Your task to perform on an android device: When is my next meeting? Image 0: 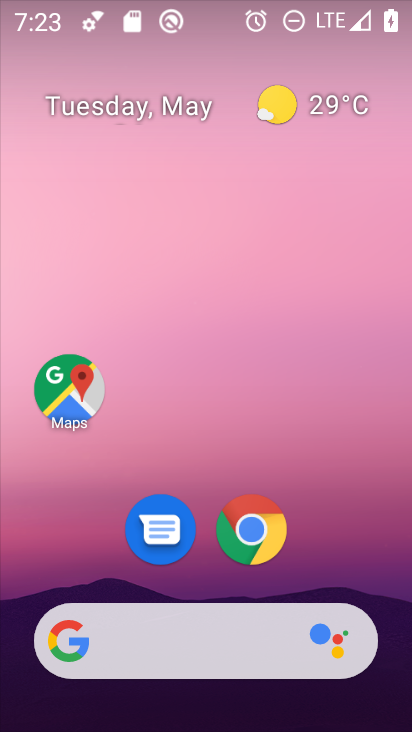
Step 0: drag from (379, 645) to (187, 25)
Your task to perform on an android device: When is my next meeting? Image 1: 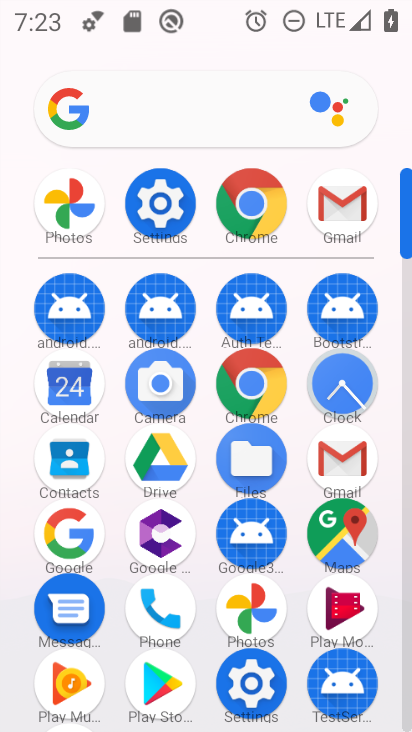
Step 1: click (81, 388)
Your task to perform on an android device: When is my next meeting? Image 2: 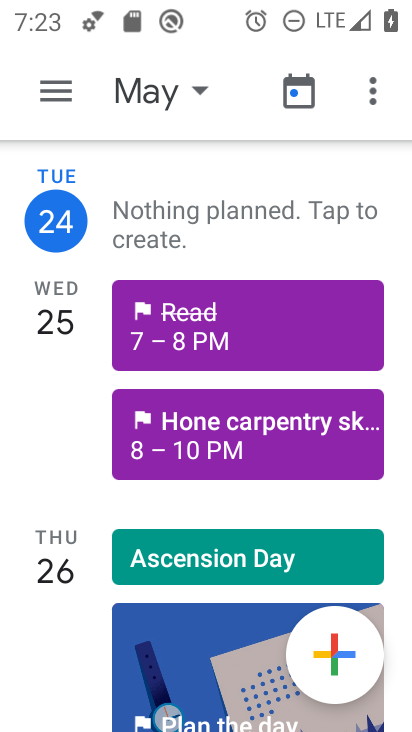
Step 2: task complete